Your task to perform on an android device: Go to notification settings Image 0: 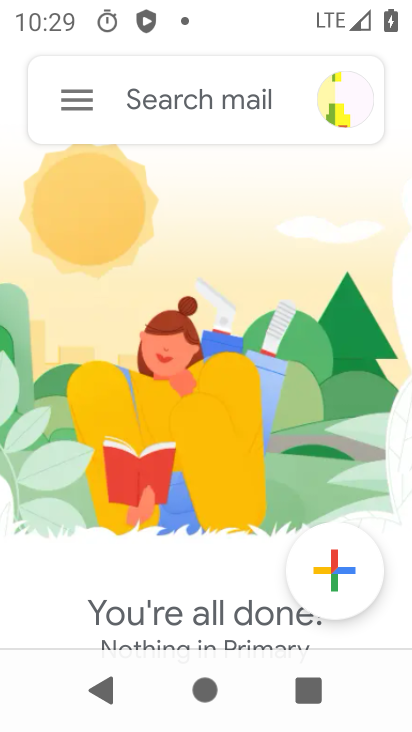
Step 0: press home button
Your task to perform on an android device: Go to notification settings Image 1: 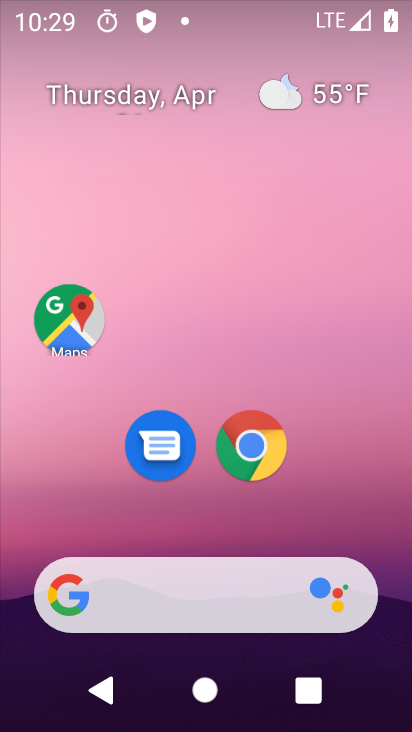
Step 1: drag from (385, 527) to (360, 8)
Your task to perform on an android device: Go to notification settings Image 2: 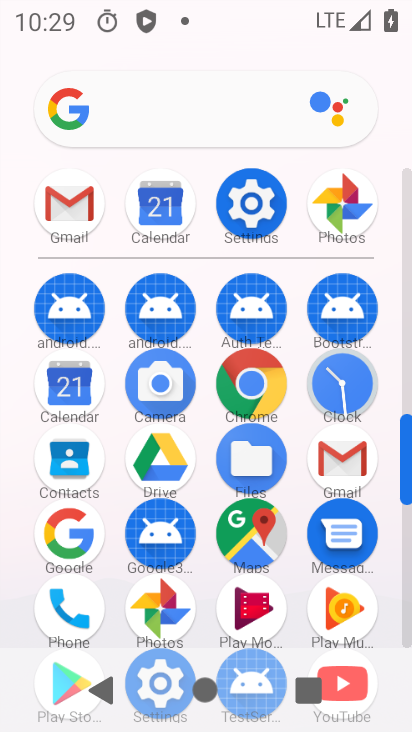
Step 2: click (253, 219)
Your task to perform on an android device: Go to notification settings Image 3: 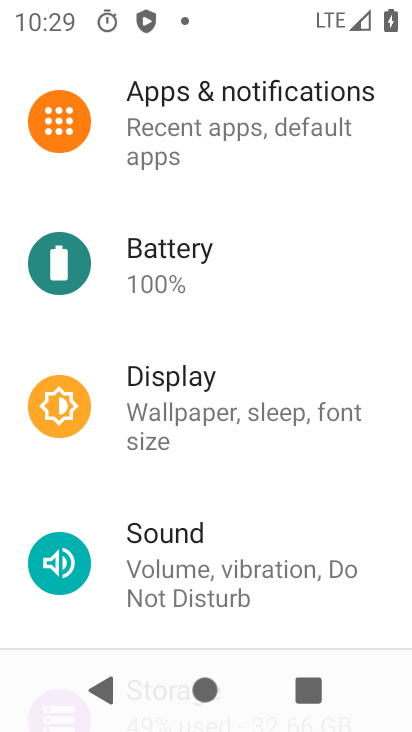
Step 3: click (282, 129)
Your task to perform on an android device: Go to notification settings Image 4: 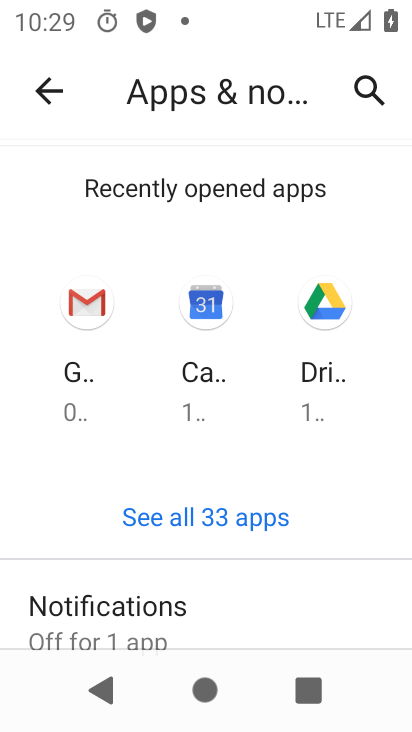
Step 4: task complete